Your task to perform on an android device: Go to Amazon Image 0: 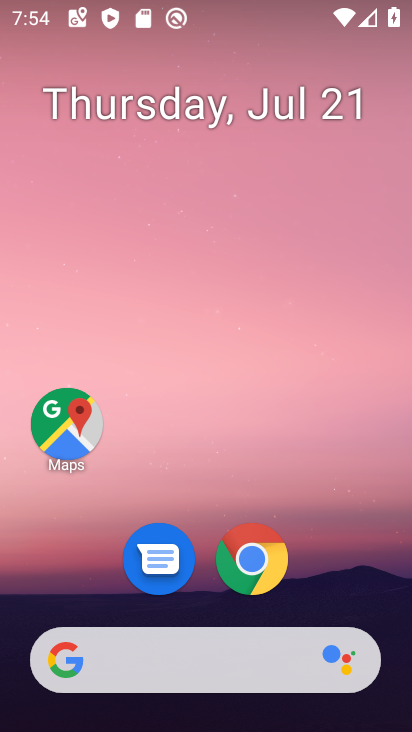
Step 0: drag from (180, 679) to (284, 199)
Your task to perform on an android device: Go to Amazon Image 1: 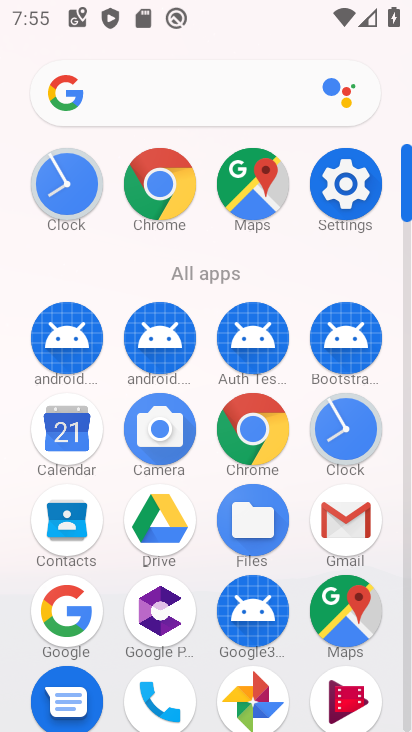
Step 1: click (175, 196)
Your task to perform on an android device: Go to Amazon Image 2: 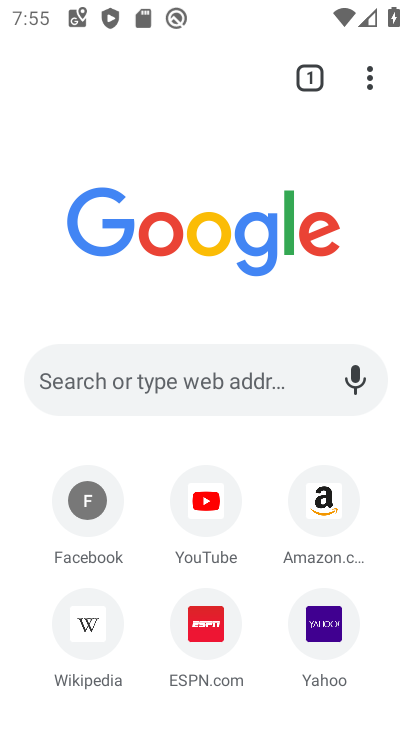
Step 2: click (338, 513)
Your task to perform on an android device: Go to Amazon Image 3: 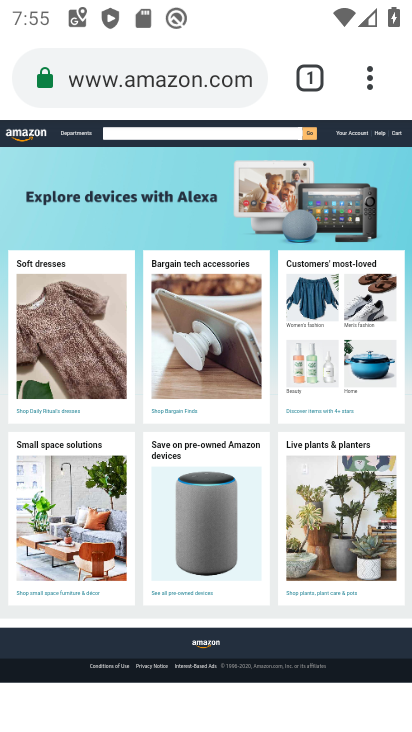
Step 3: task complete